Your task to perform on an android device: Open ESPN.com Image 0: 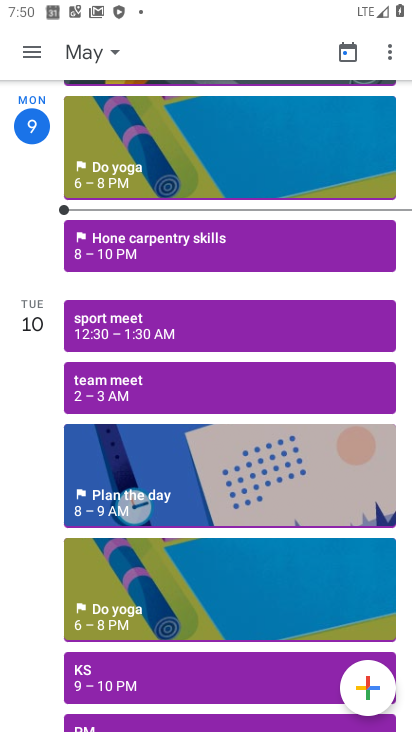
Step 0: press home button
Your task to perform on an android device: Open ESPN.com Image 1: 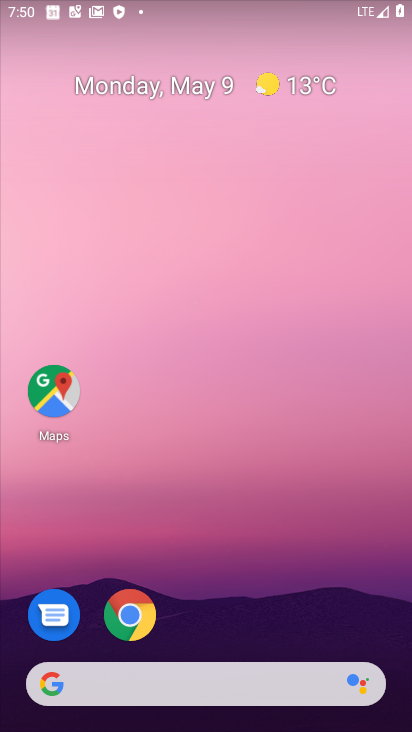
Step 1: click (215, 676)
Your task to perform on an android device: Open ESPN.com Image 2: 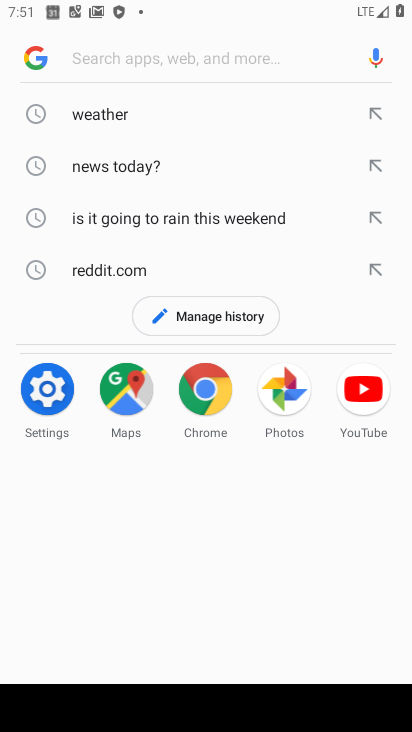
Step 2: type "espn.com"
Your task to perform on an android device: Open ESPN.com Image 3: 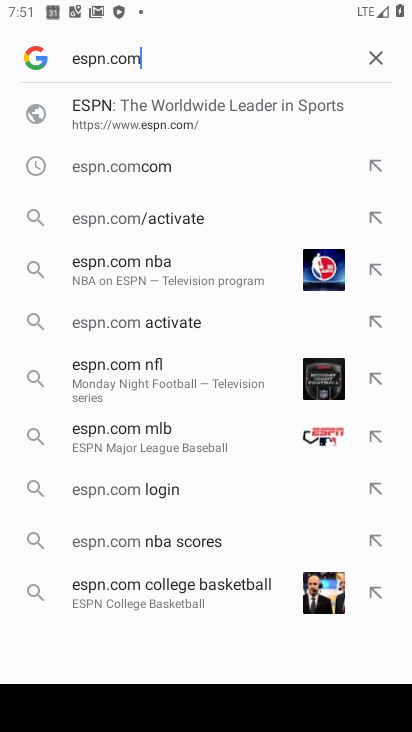
Step 3: click (217, 128)
Your task to perform on an android device: Open ESPN.com Image 4: 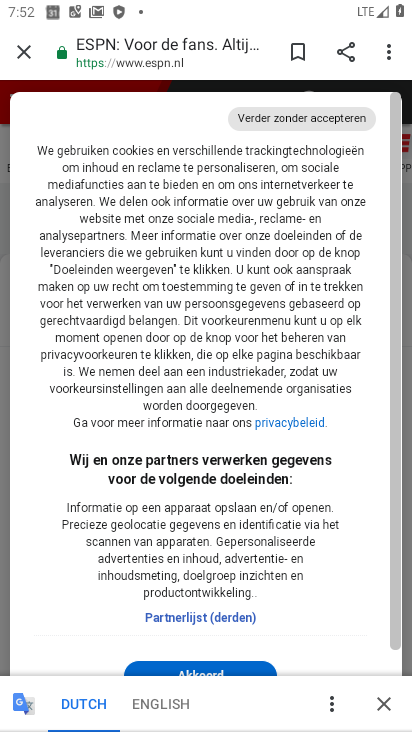
Step 4: task complete